Your task to perform on an android device: Open settings Image 0: 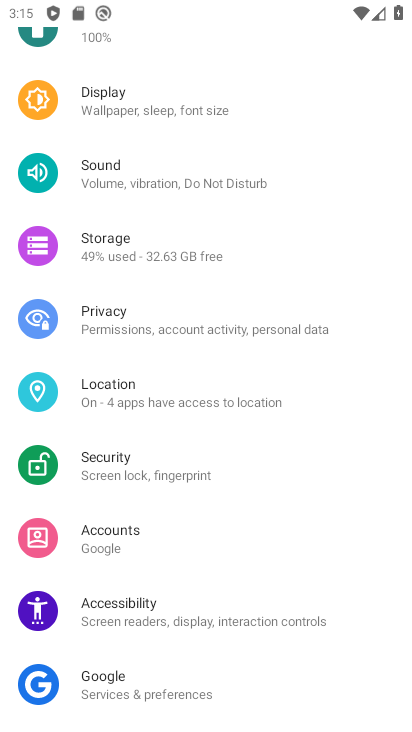
Step 0: drag from (95, 525) to (135, 137)
Your task to perform on an android device: Open settings Image 1: 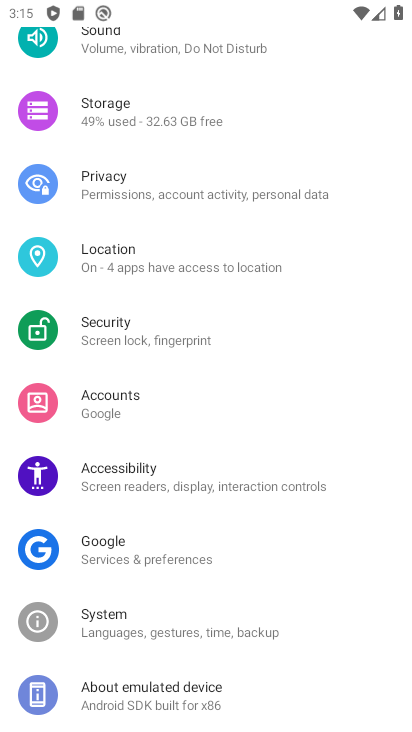
Step 1: task complete